Your task to perform on an android device: check out phone information Image 0: 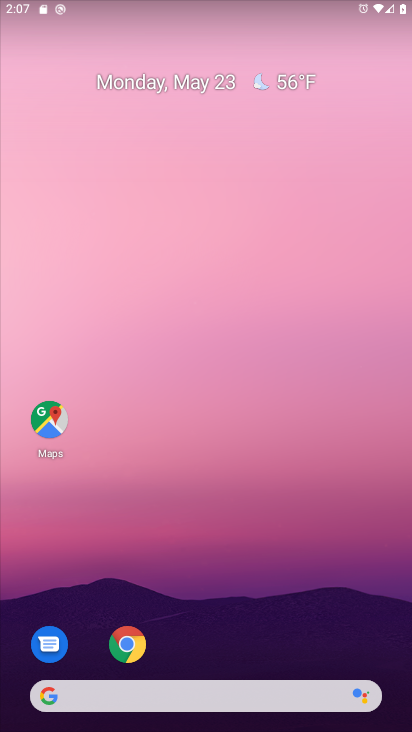
Step 0: drag from (192, 668) to (213, 180)
Your task to perform on an android device: check out phone information Image 1: 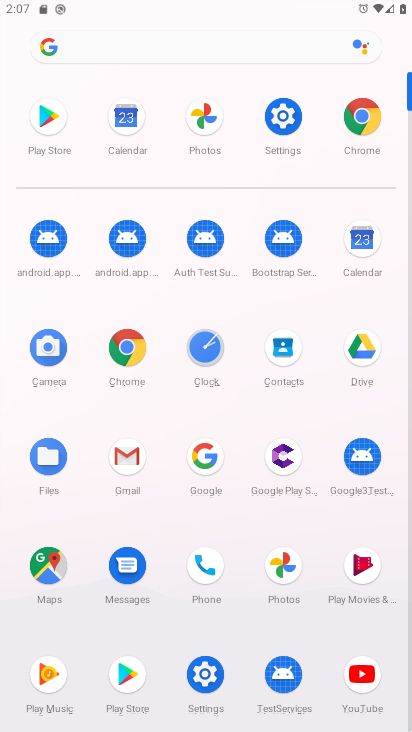
Step 1: click (284, 119)
Your task to perform on an android device: check out phone information Image 2: 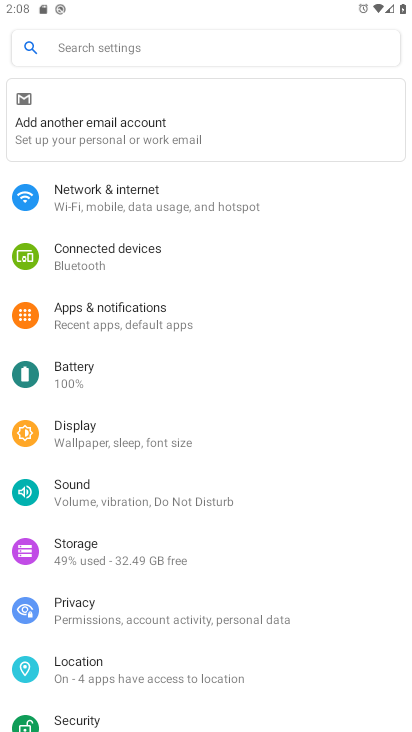
Step 2: drag from (141, 656) to (163, 40)
Your task to perform on an android device: check out phone information Image 3: 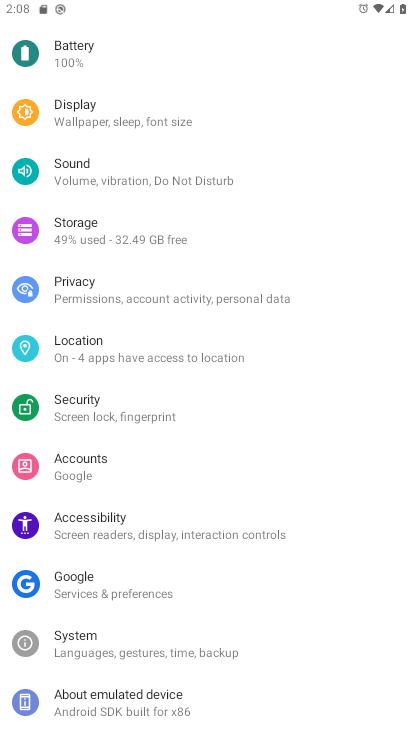
Step 3: click (120, 709)
Your task to perform on an android device: check out phone information Image 4: 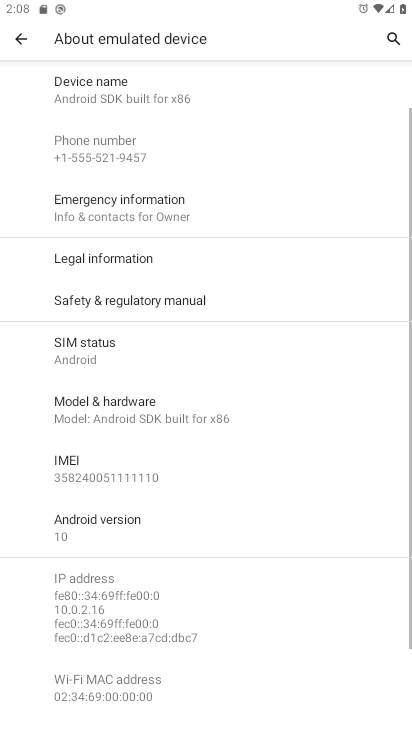
Step 4: task complete